Your task to perform on an android device: set the timer Image 0: 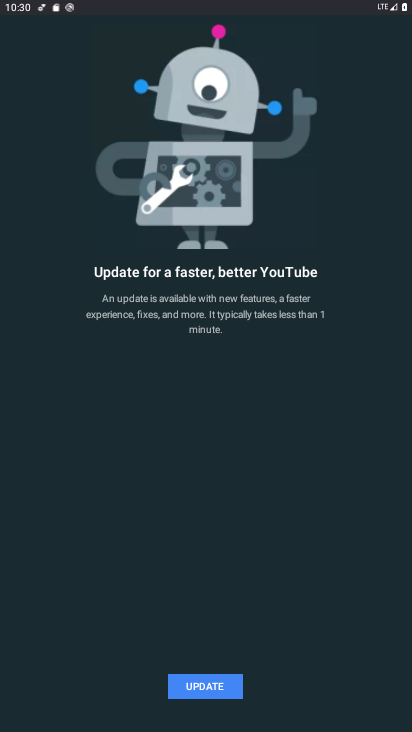
Step 0: click (385, 497)
Your task to perform on an android device: set the timer Image 1: 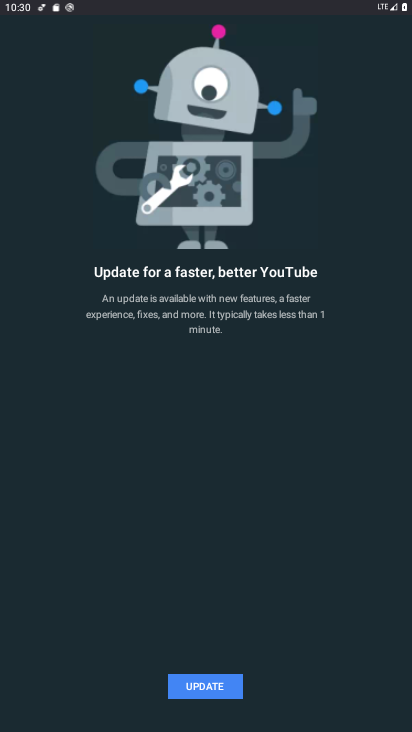
Step 1: press home button
Your task to perform on an android device: set the timer Image 2: 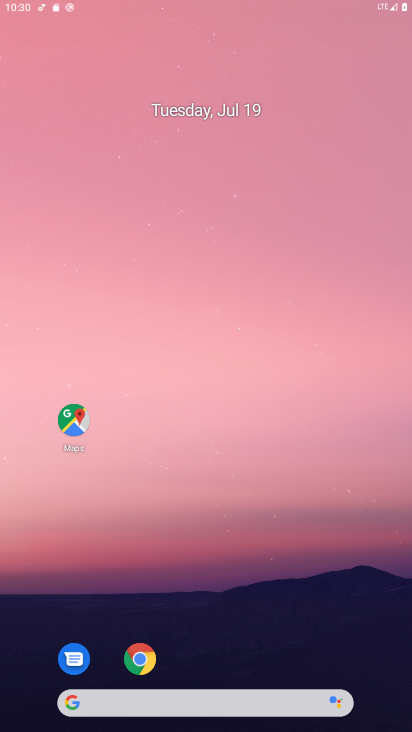
Step 2: drag from (217, 649) to (400, 187)
Your task to perform on an android device: set the timer Image 3: 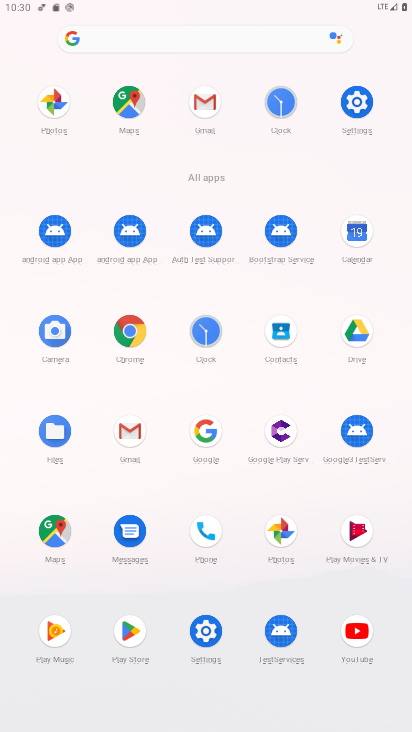
Step 3: click (204, 338)
Your task to perform on an android device: set the timer Image 4: 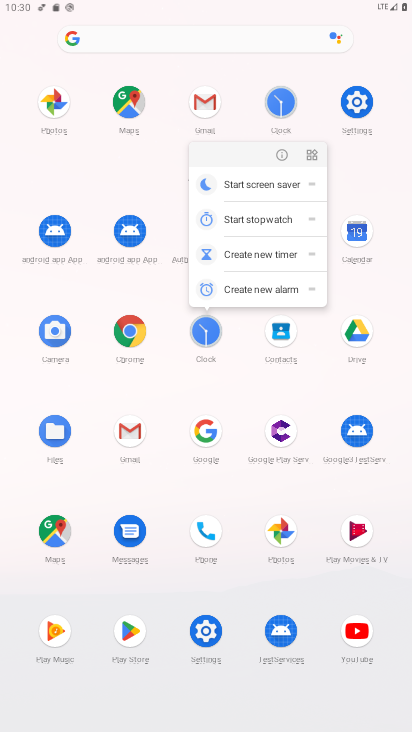
Step 4: click (279, 154)
Your task to perform on an android device: set the timer Image 5: 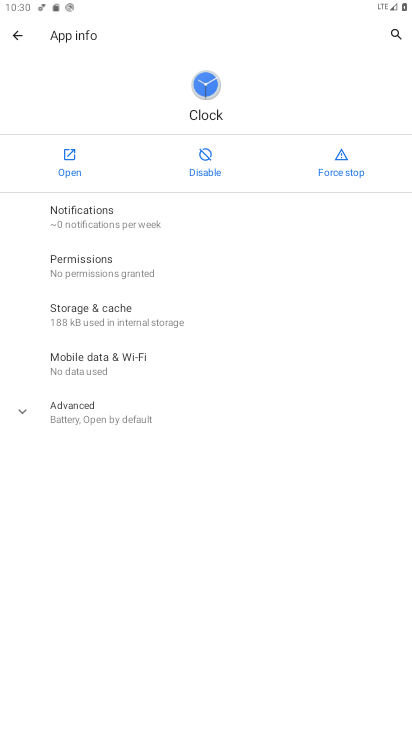
Step 5: click (61, 147)
Your task to perform on an android device: set the timer Image 6: 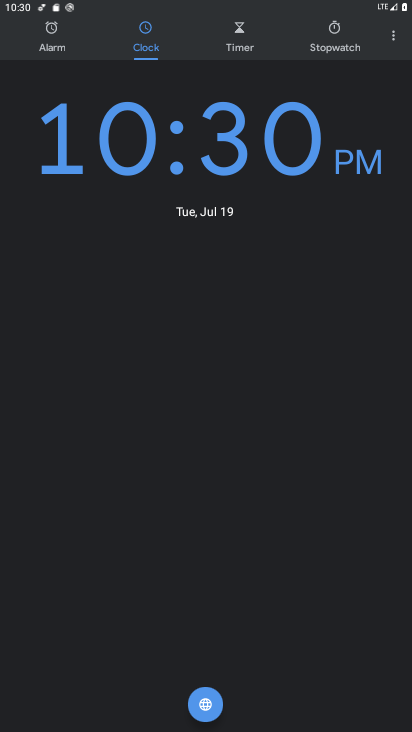
Step 6: click (240, 27)
Your task to perform on an android device: set the timer Image 7: 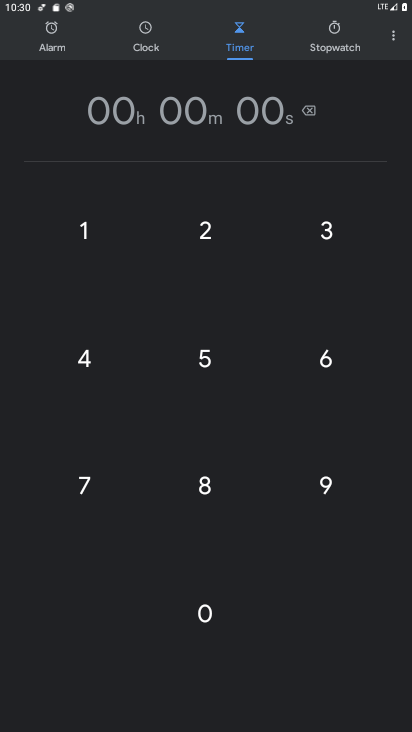
Step 7: click (198, 190)
Your task to perform on an android device: set the timer Image 8: 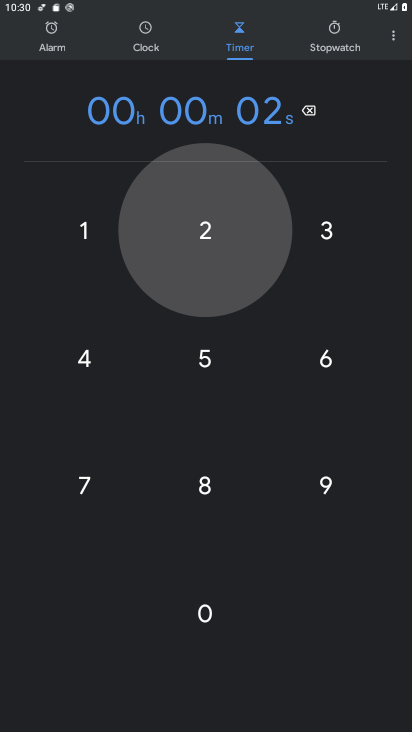
Step 8: click (201, 224)
Your task to perform on an android device: set the timer Image 9: 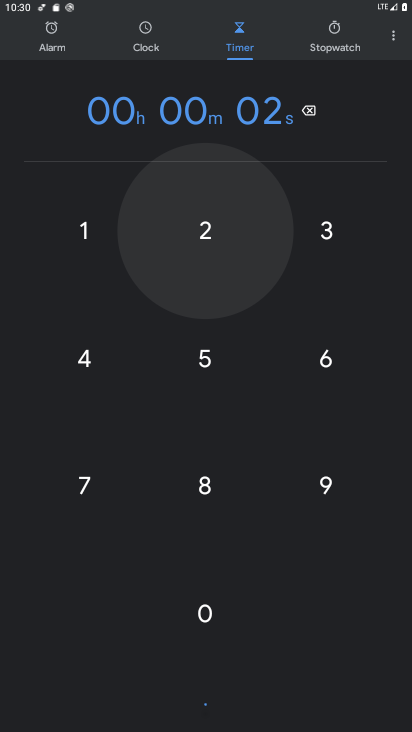
Step 9: click (314, 232)
Your task to perform on an android device: set the timer Image 10: 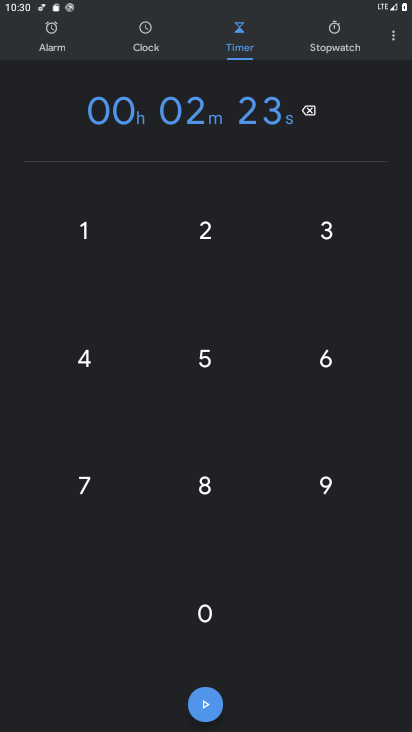
Step 10: click (328, 372)
Your task to perform on an android device: set the timer Image 11: 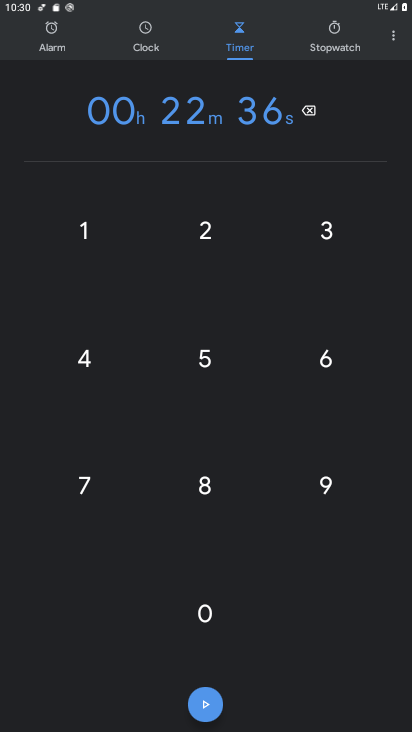
Step 11: click (202, 711)
Your task to perform on an android device: set the timer Image 12: 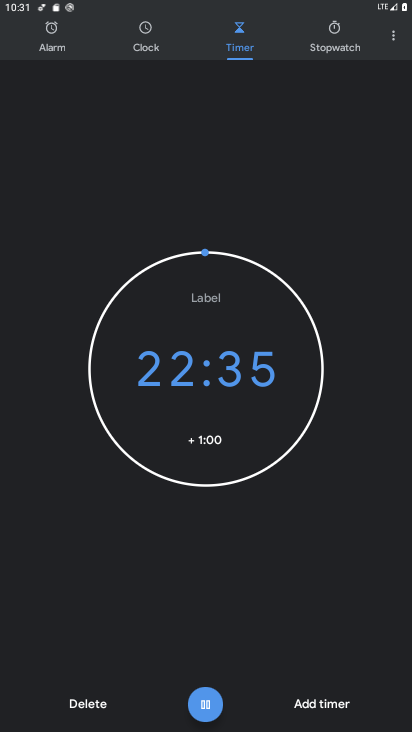
Step 12: task complete